Your task to perform on an android device: set the timer Image 0: 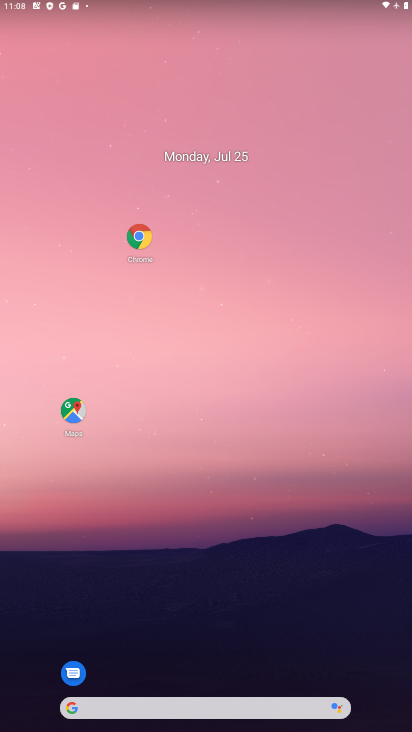
Step 0: drag from (269, 665) to (260, 191)
Your task to perform on an android device: set the timer Image 1: 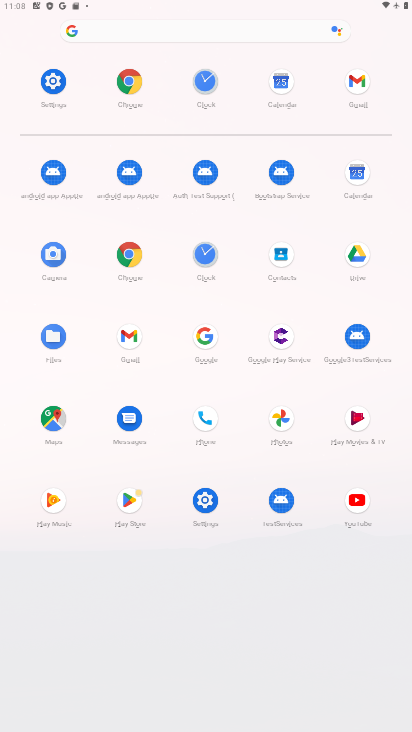
Step 1: click (60, 104)
Your task to perform on an android device: set the timer Image 2: 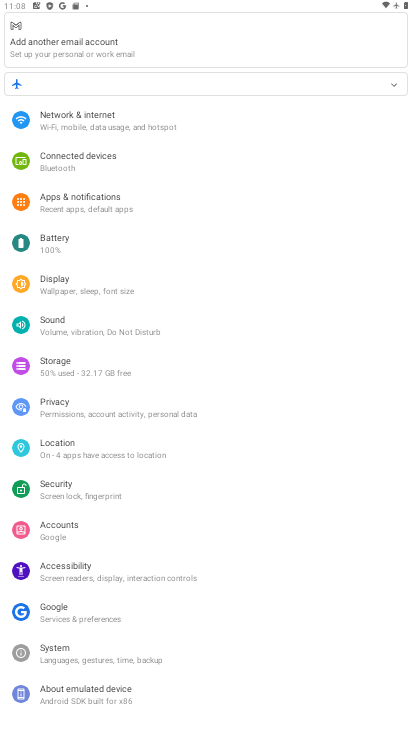
Step 2: task complete